Your task to perform on an android device: Open maps Image 0: 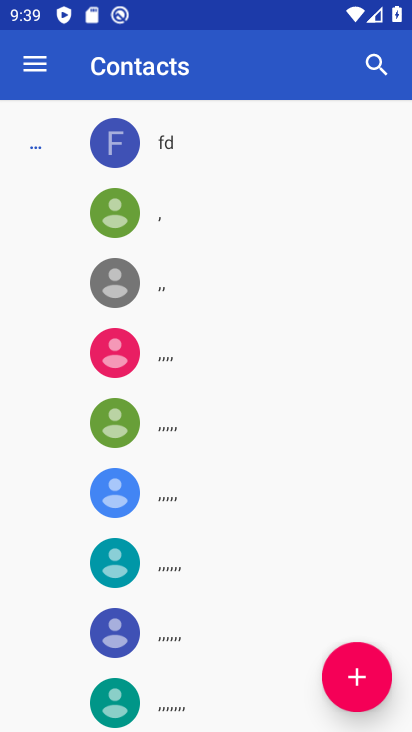
Step 0: press home button
Your task to perform on an android device: Open maps Image 1: 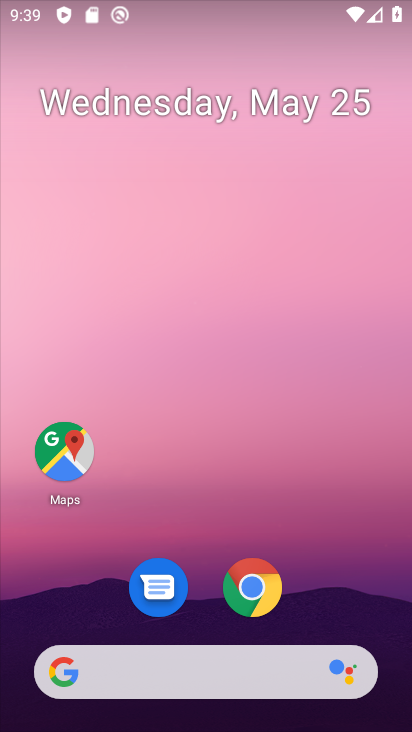
Step 1: click (65, 462)
Your task to perform on an android device: Open maps Image 2: 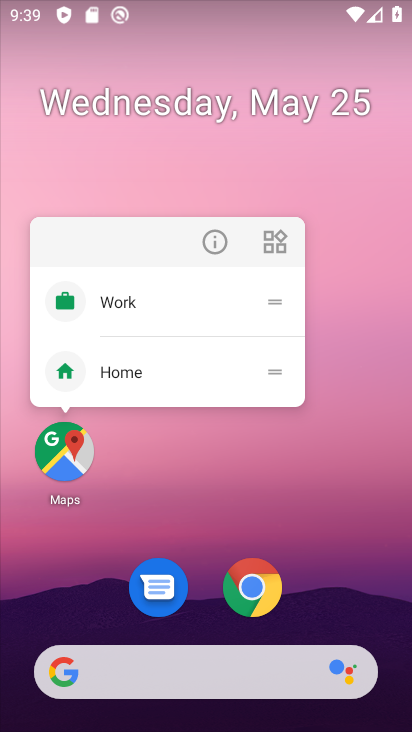
Step 2: click (66, 461)
Your task to perform on an android device: Open maps Image 3: 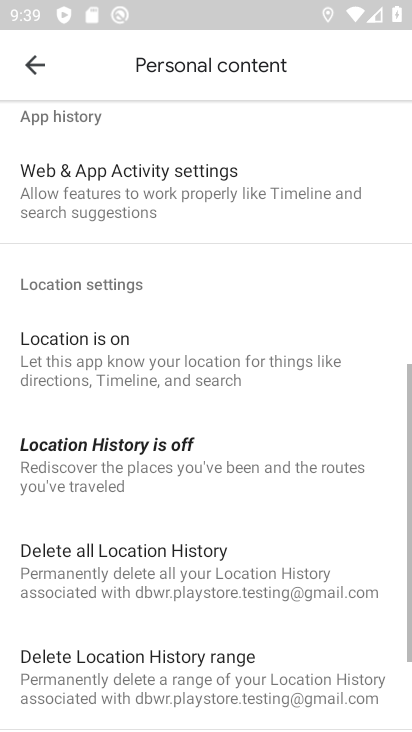
Step 3: click (20, 59)
Your task to perform on an android device: Open maps Image 4: 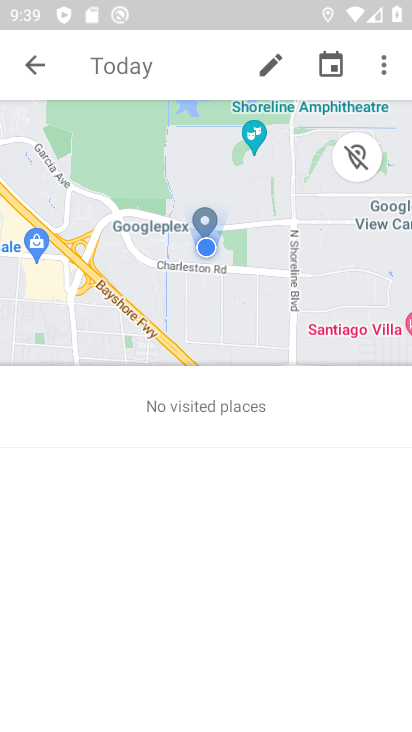
Step 4: click (32, 64)
Your task to perform on an android device: Open maps Image 5: 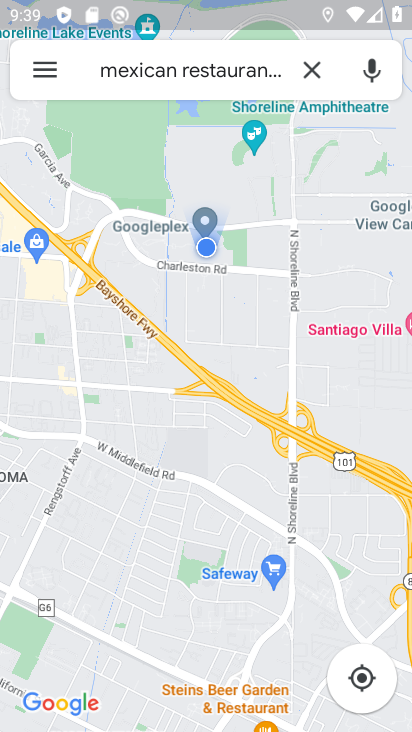
Step 5: click (309, 69)
Your task to perform on an android device: Open maps Image 6: 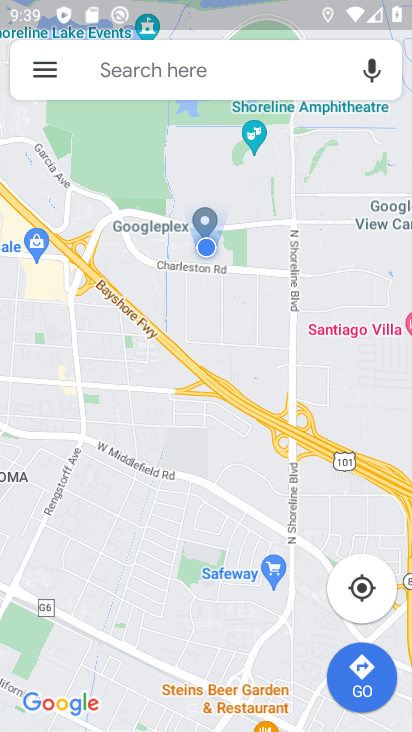
Step 6: task complete